Your task to perform on an android device: turn off smart reply in the gmail app Image 0: 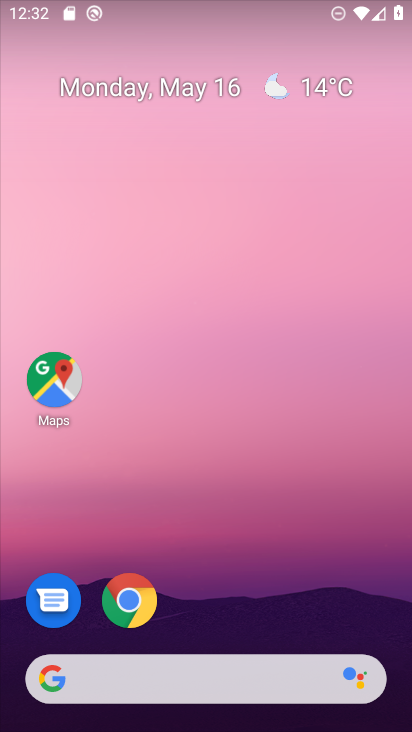
Step 0: drag from (203, 633) to (243, 18)
Your task to perform on an android device: turn off smart reply in the gmail app Image 1: 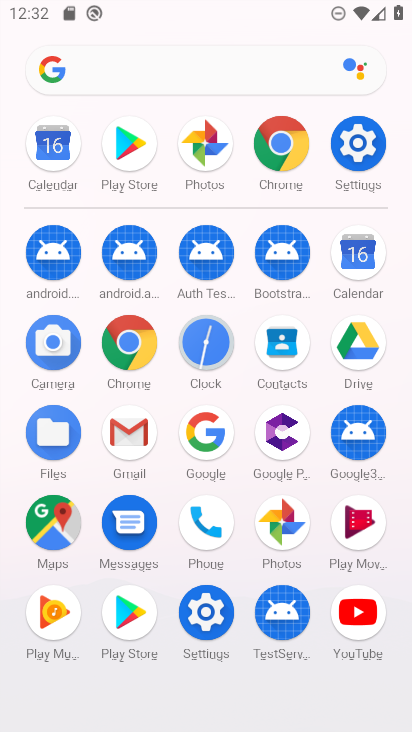
Step 1: click (128, 423)
Your task to perform on an android device: turn off smart reply in the gmail app Image 2: 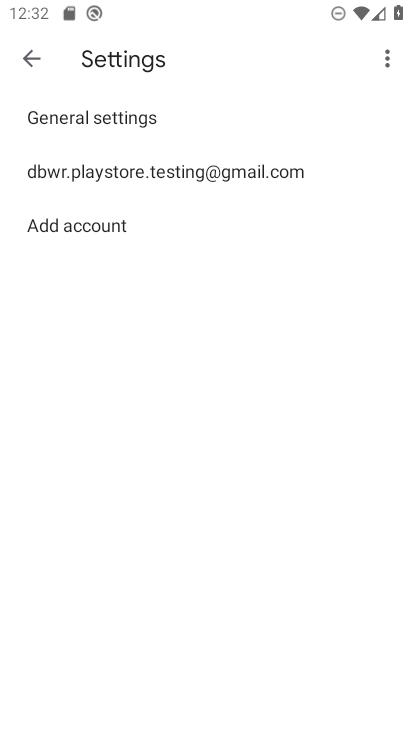
Step 2: click (315, 164)
Your task to perform on an android device: turn off smart reply in the gmail app Image 3: 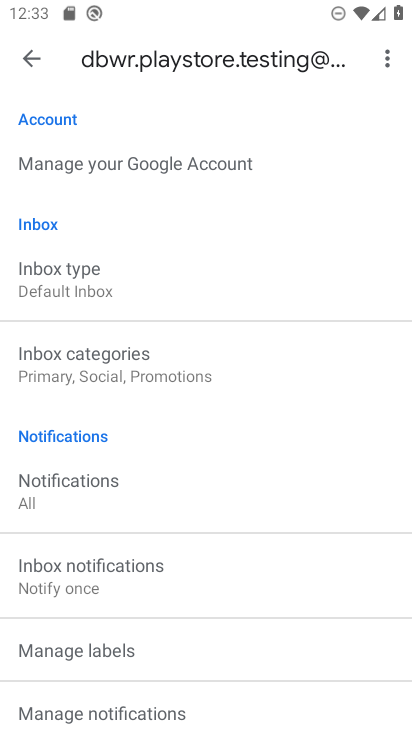
Step 3: drag from (223, 678) to (247, 86)
Your task to perform on an android device: turn off smart reply in the gmail app Image 4: 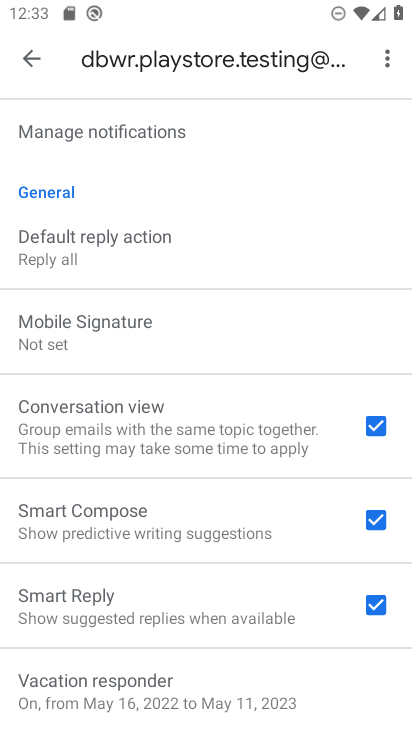
Step 4: click (376, 599)
Your task to perform on an android device: turn off smart reply in the gmail app Image 5: 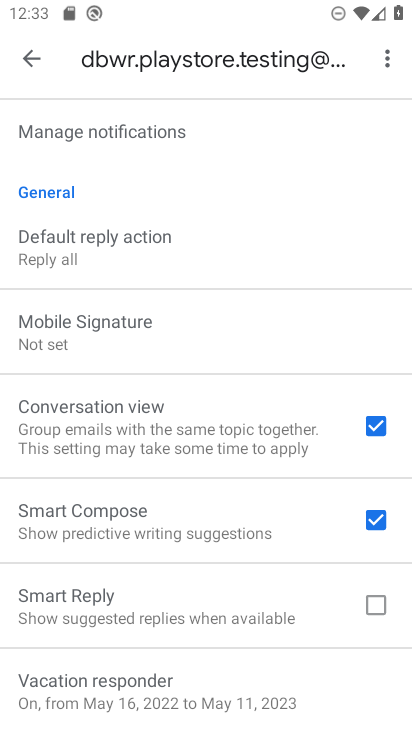
Step 5: task complete